Your task to perform on an android device: Toggle the flashlight Image 0: 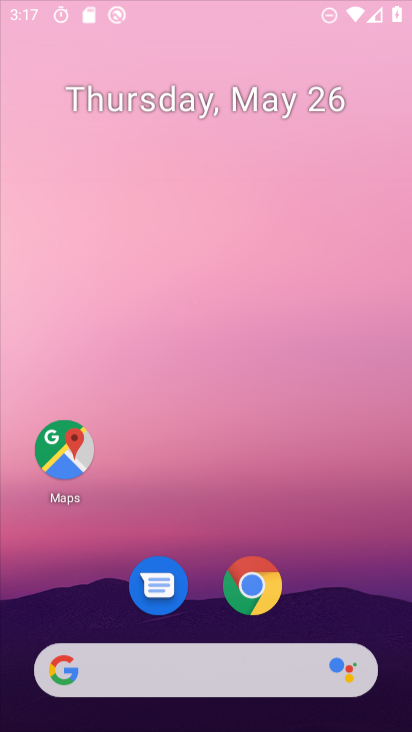
Step 0: drag from (321, 574) to (341, 165)
Your task to perform on an android device: Toggle the flashlight Image 1: 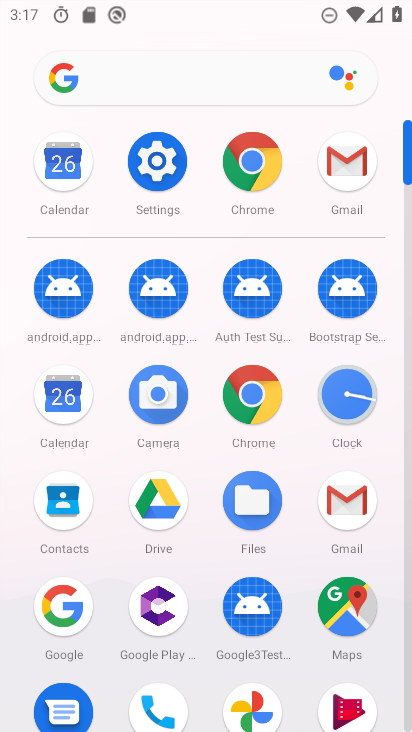
Step 1: click (144, 163)
Your task to perform on an android device: Toggle the flashlight Image 2: 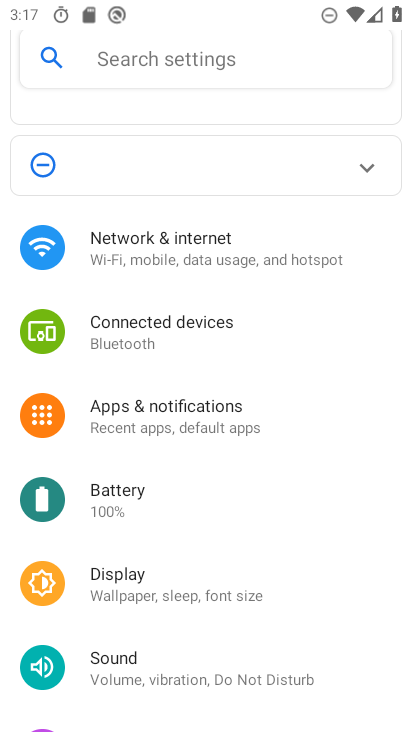
Step 2: drag from (228, 541) to (252, 368)
Your task to perform on an android device: Toggle the flashlight Image 3: 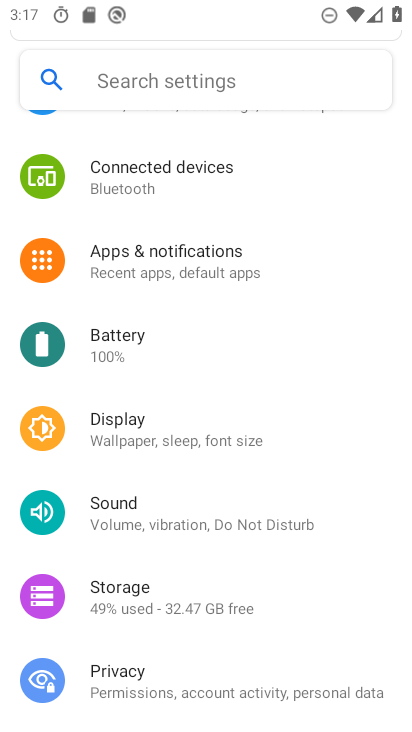
Step 3: drag from (237, 339) to (212, 491)
Your task to perform on an android device: Toggle the flashlight Image 4: 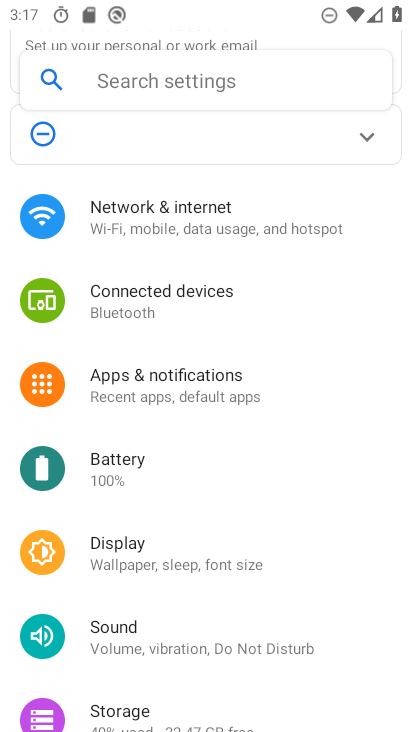
Step 4: click (139, 547)
Your task to perform on an android device: Toggle the flashlight Image 5: 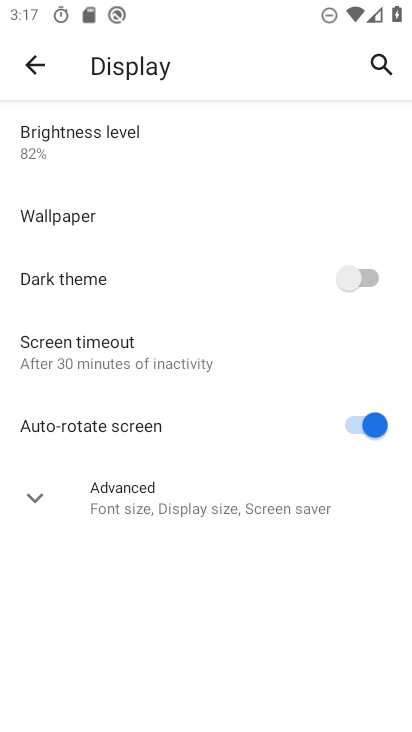
Step 5: click (133, 344)
Your task to perform on an android device: Toggle the flashlight Image 6: 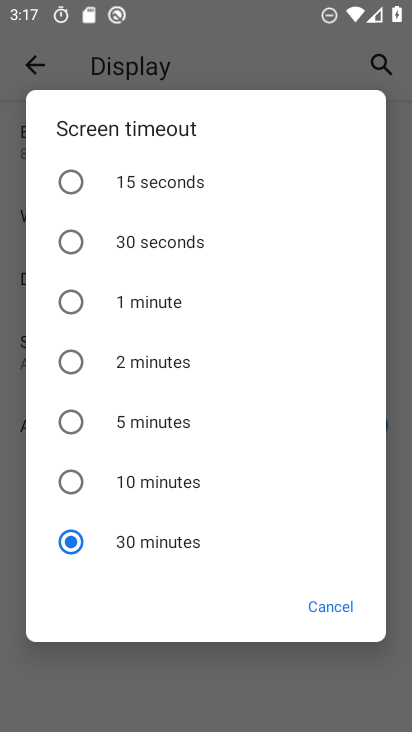
Step 6: click (142, 471)
Your task to perform on an android device: Toggle the flashlight Image 7: 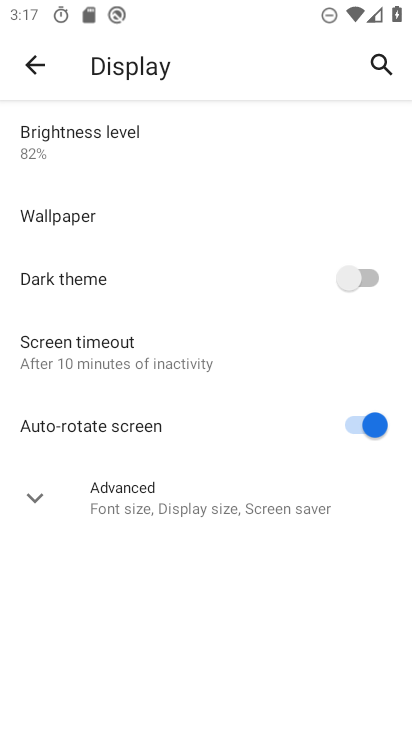
Step 7: task complete